Your task to perform on an android device: Clear the cart on newegg.com. Search for razer blackwidow on newegg.com, select the first entry, and add it to the cart. Image 0: 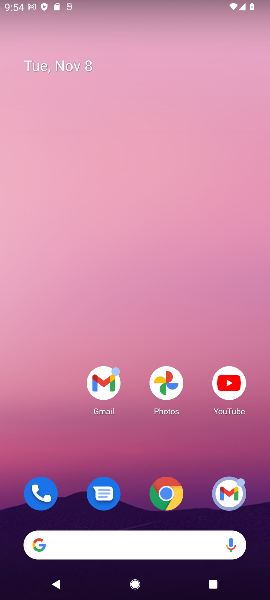
Step 0: click (170, 497)
Your task to perform on an android device: Clear the cart on newegg.com. Search for razer blackwidow on newegg.com, select the first entry, and add it to the cart. Image 1: 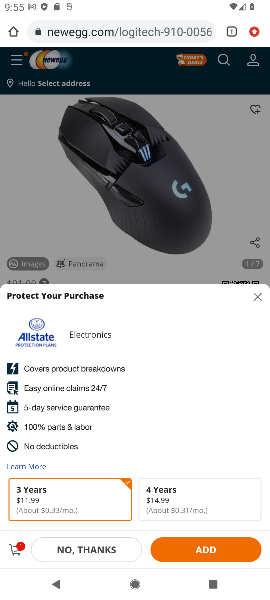
Step 1: click (256, 298)
Your task to perform on an android device: Clear the cart on newegg.com. Search for razer blackwidow on newegg.com, select the first entry, and add it to the cart. Image 2: 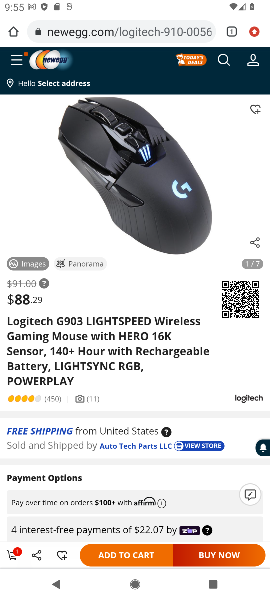
Step 2: drag from (205, 128) to (199, 340)
Your task to perform on an android device: Clear the cart on newegg.com. Search for razer blackwidow on newegg.com, select the first entry, and add it to the cart. Image 3: 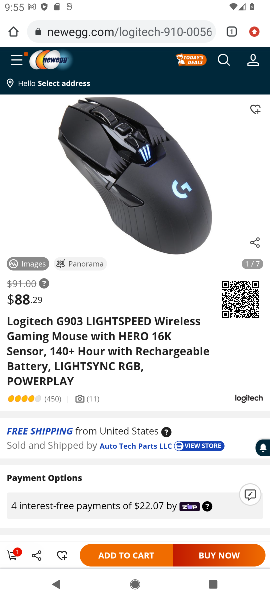
Step 3: drag from (151, 160) to (154, 302)
Your task to perform on an android device: Clear the cart on newegg.com. Search for razer blackwidow on newegg.com, select the first entry, and add it to the cart. Image 4: 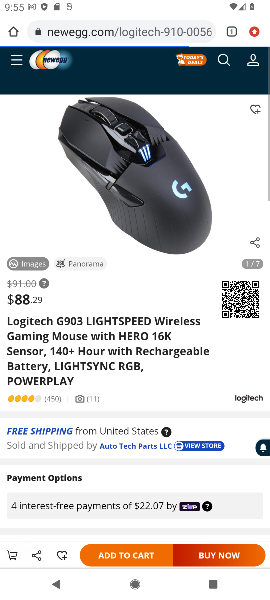
Step 4: click (16, 554)
Your task to perform on an android device: Clear the cart on newegg.com. Search for razer blackwidow on newegg.com, select the first entry, and add it to the cart. Image 5: 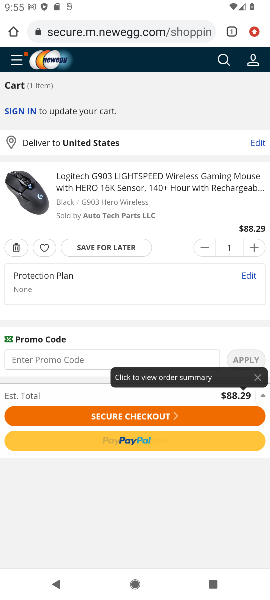
Step 5: click (17, 252)
Your task to perform on an android device: Clear the cart on newegg.com. Search for razer blackwidow on newegg.com, select the first entry, and add it to the cart. Image 6: 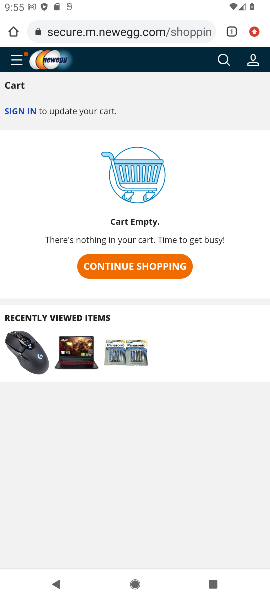
Step 6: click (128, 272)
Your task to perform on an android device: Clear the cart on newegg.com. Search for razer blackwidow on newegg.com, select the first entry, and add it to the cart. Image 7: 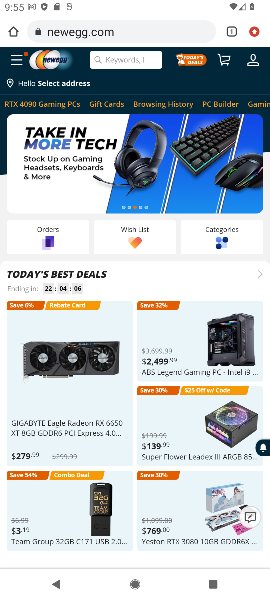
Step 7: click (116, 65)
Your task to perform on an android device: Clear the cart on newegg.com. Search for razer blackwidow on newegg.com, select the first entry, and add it to the cart. Image 8: 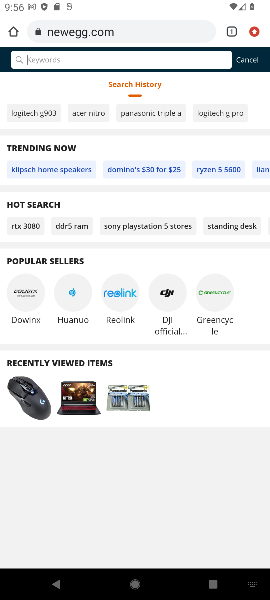
Step 8: type " razer blackwidow"
Your task to perform on an android device: Clear the cart on newegg.com. Search for razer blackwidow on newegg.com, select the first entry, and add it to the cart. Image 9: 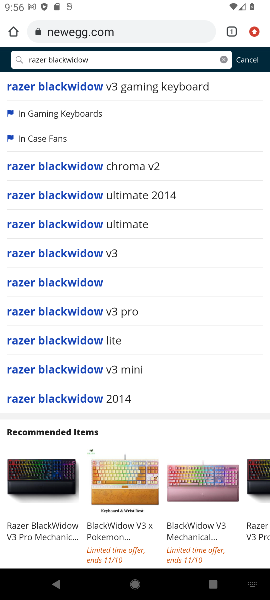
Step 9: click (64, 282)
Your task to perform on an android device: Clear the cart on newegg.com. Search for razer blackwidow on newegg.com, select the first entry, and add it to the cart. Image 10: 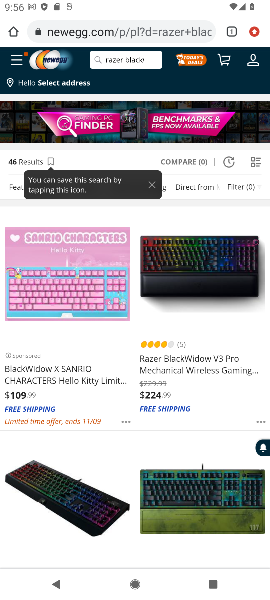
Step 10: task complete